Your task to perform on an android device: open app "Airtel Thanks" (install if not already installed) Image 0: 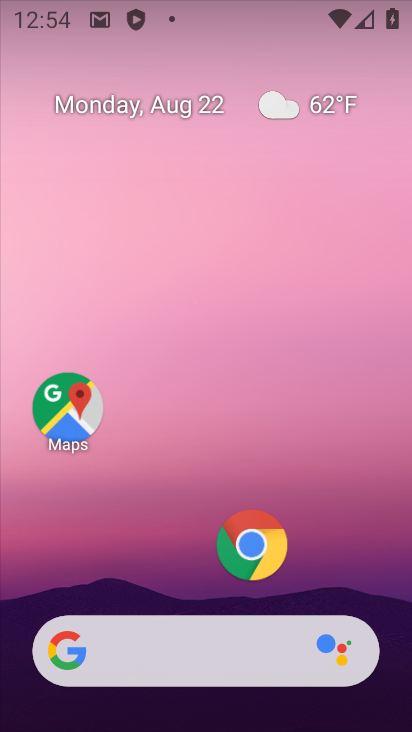
Step 0: drag from (168, 356) to (216, 42)
Your task to perform on an android device: open app "Airtel Thanks" (install if not already installed) Image 1: 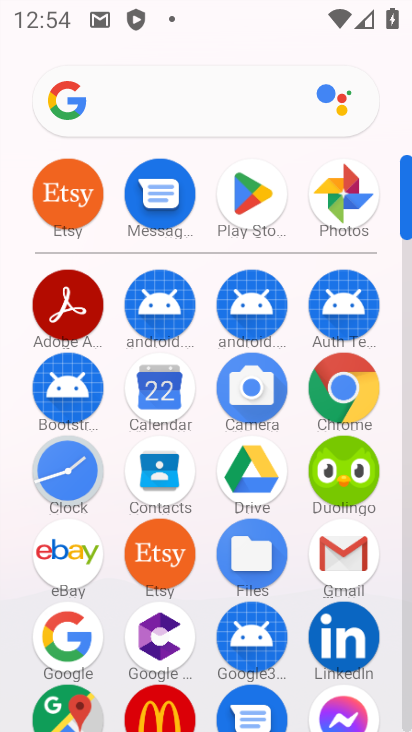
Step 1: click (244, 183)
Your task to perform on an android device: open app "Airtel Thanks" (install if not already installed) Image 2: 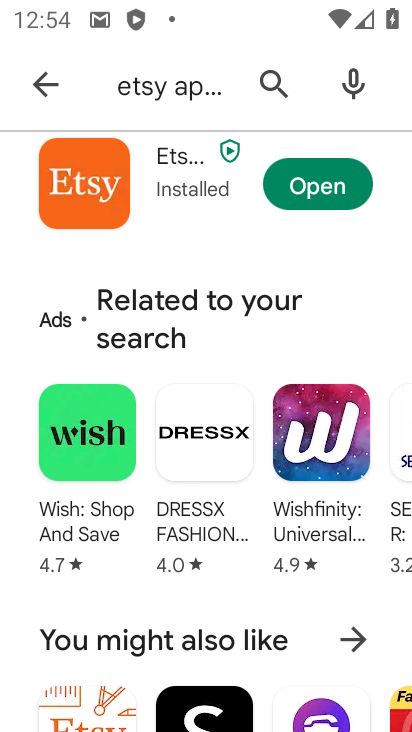
Step 2: click (274, 86)
Your task to perform on an android device: open app "Airtel Thanks" (install if not already installed) Image 3: 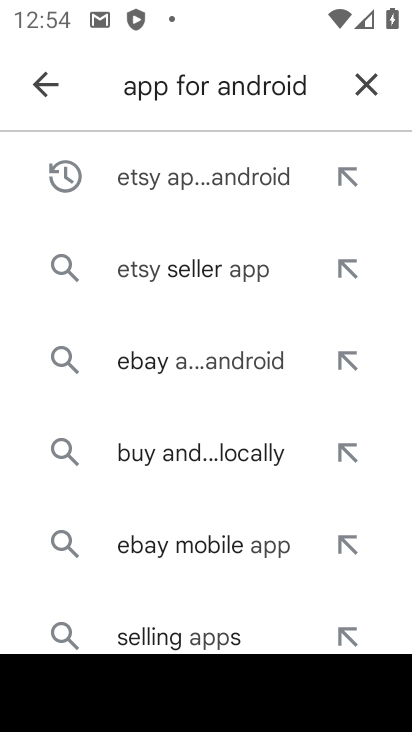
Step 3: click (359, 83)
Your task to perform on an android device: open app "Airtel Thanks" (install if not already installed) Image 4: 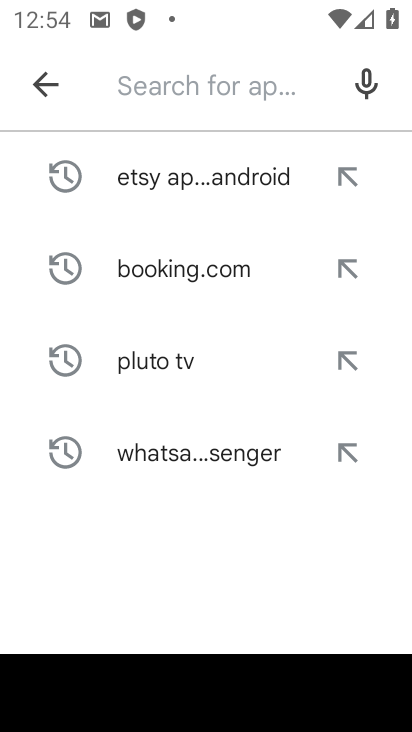
Step 4: click (146, 91)
Your task to perform on an android device: open app "Airtel Thanks" (install if not already installed) Image 5: 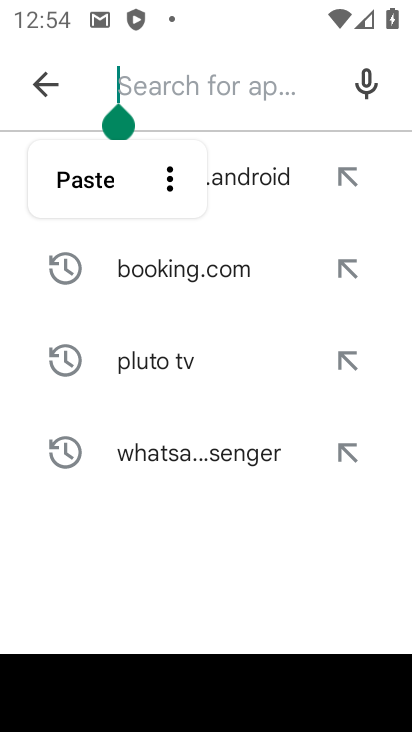
Step 5: type "Airtel Thanks"
Your task to perform on an android device: open app "Airtel Thanks" (install if not already installed) Image 6: 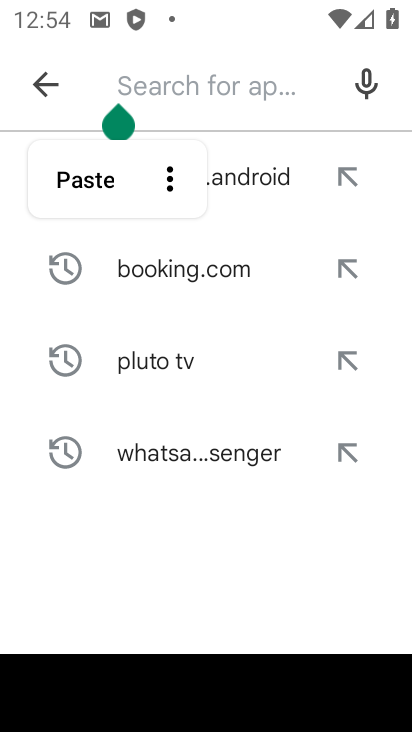
Step 6: click (154, 573)
Your task to perform on an android device: open app "Airtel Thanks" (install if not already installed) Image 7: 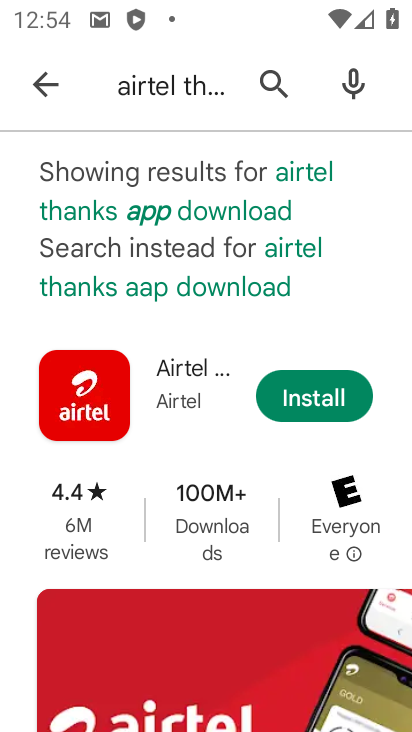
Step 7: click (311, 396)
Your task to perform on an android device: open app "Airtel Thanks" (install if not already installed) Image 8: 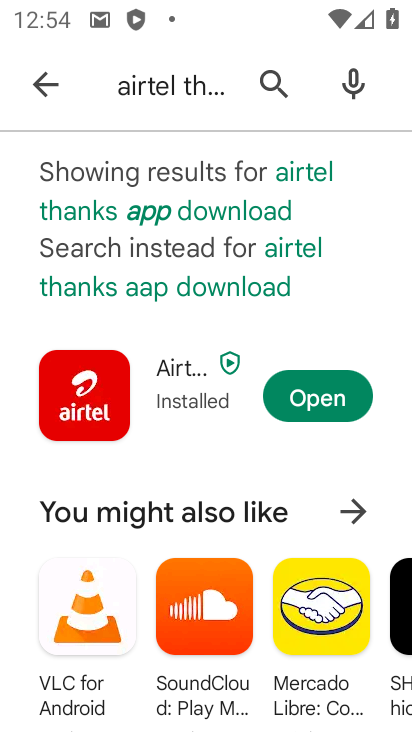
Step 8: click (323, 389)
Your task to perform on an android device: open app "Airtel Thanks" (install if not already installed) Image 9: 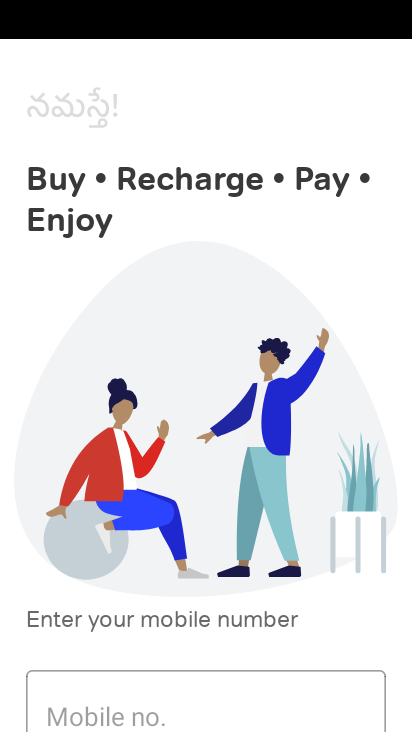
Step 9: task complete